Your task to perform on an android device: Search for Italian restaurants on Maps Image 0: 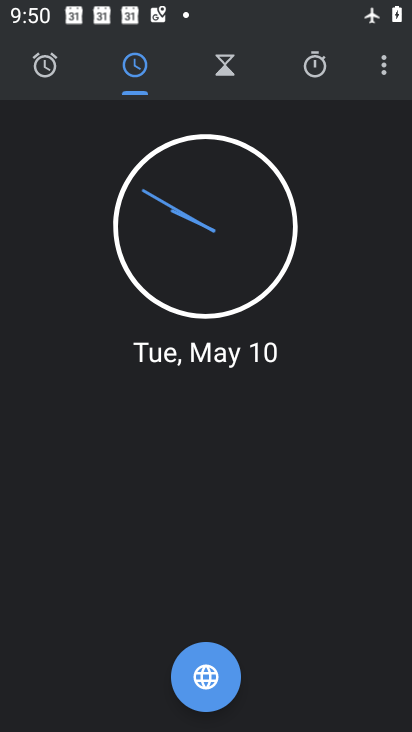
Step 0: press home button
Your task to perform on an android device: Search for Italian restaurants on Maps Image 1: 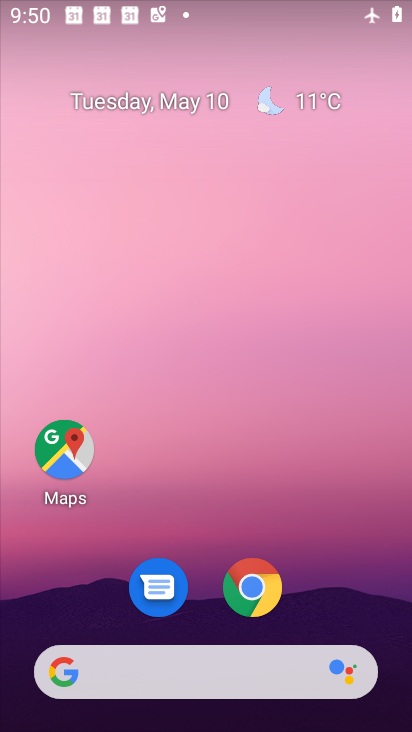
Step 1: drag from (347, 556) to (351, 147)
Your task to perform on an android device: Search for Italian restaurants on Maps Image 2: 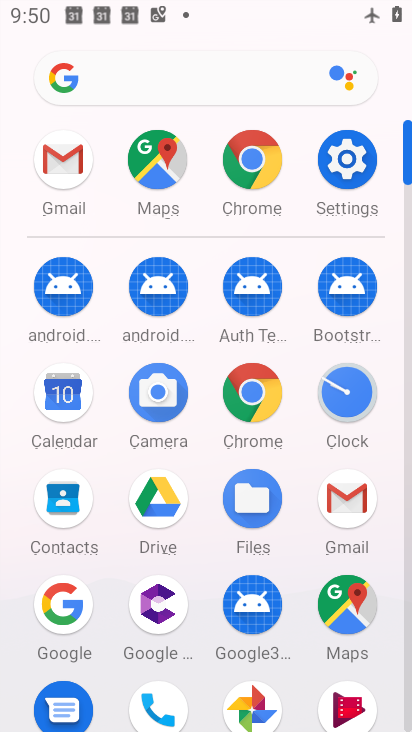
Step 2: click (322, 613)
Your task to perform on an android device: Search for Italian restaurants on Maps Image 3: 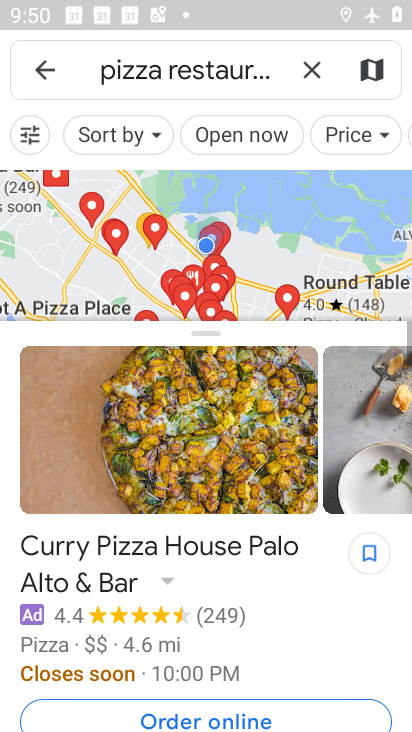
Step 3: click (307, 78)
Your task to perform on an android device: Search for Italian restaurants on Maps Image 4: 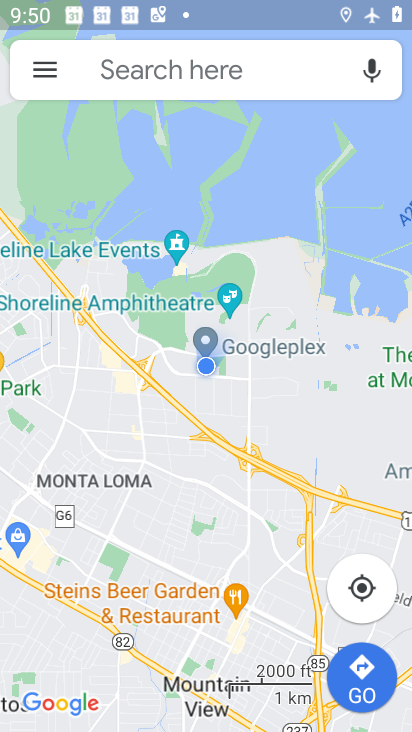
Step 4: click (191, 76)
Your task to perform on an android device: Search for Italian restaurants on Maps Image 5: 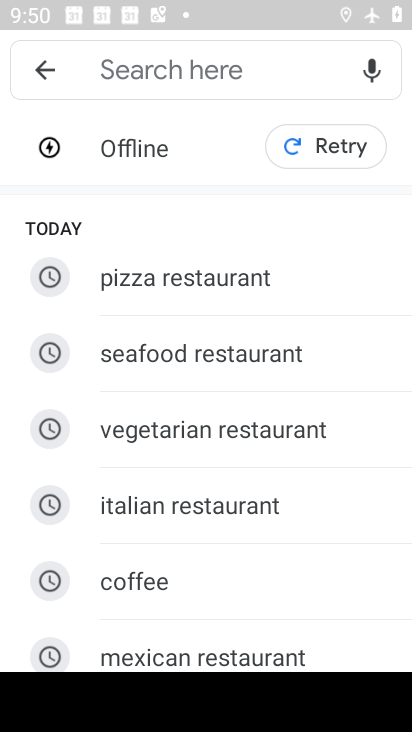
Step 5: click (304, 523)
Your task to perform on an android device: Search for Italian restaurants on Maps Image 6: 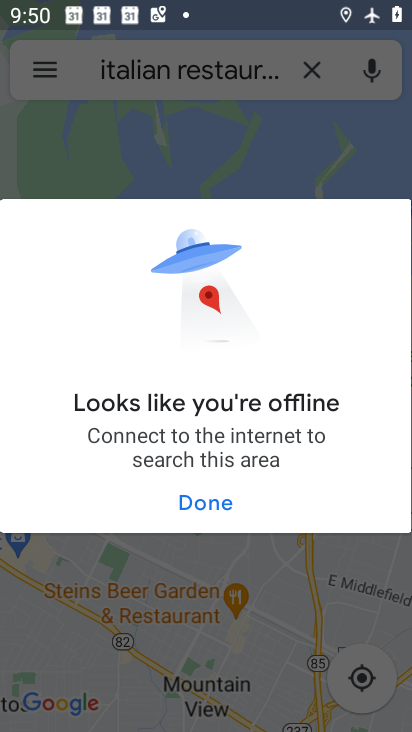
Step 6: task complete